Your task to perform on an android device: check data usage Image 0: 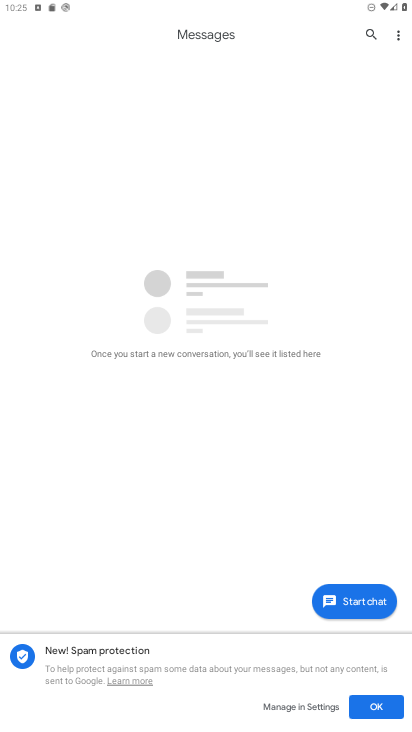
Step 0: press home button
Your task to perform on an android device: check data usage Image 1: 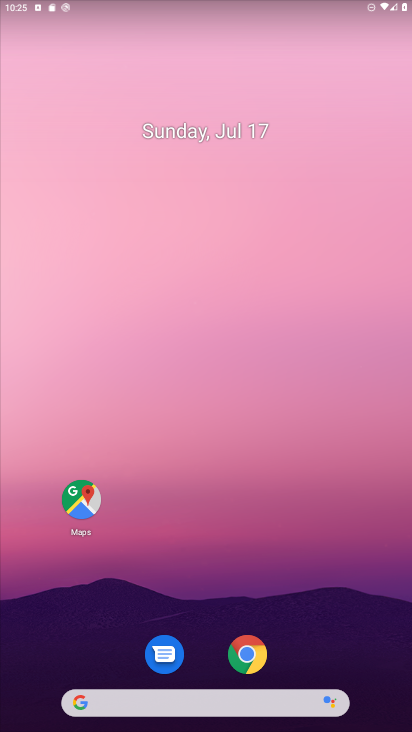
Step 1: drag from (200, 596) to (188, 113)
Your task to perform on an android device: check data usage Image 2: 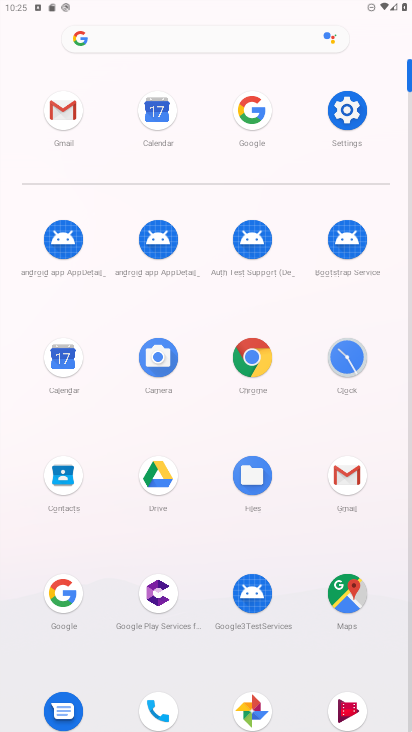
Step 2: click (339, 122)
Your task to perform on an android device: check data usage Image 3: 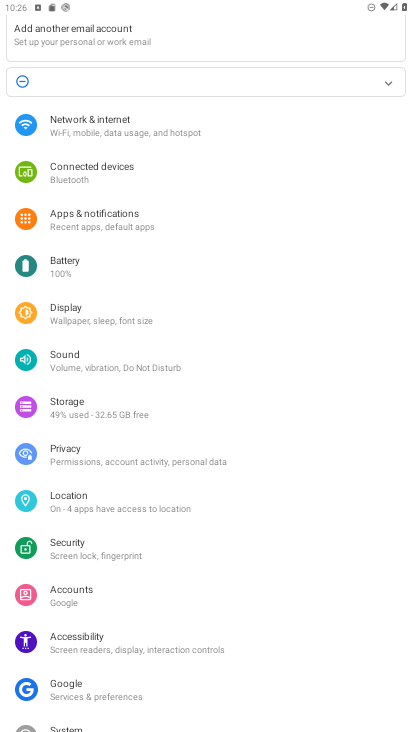
Step 3: click (119, 119)
Your task to perform on an android device: check data usage Image 4: 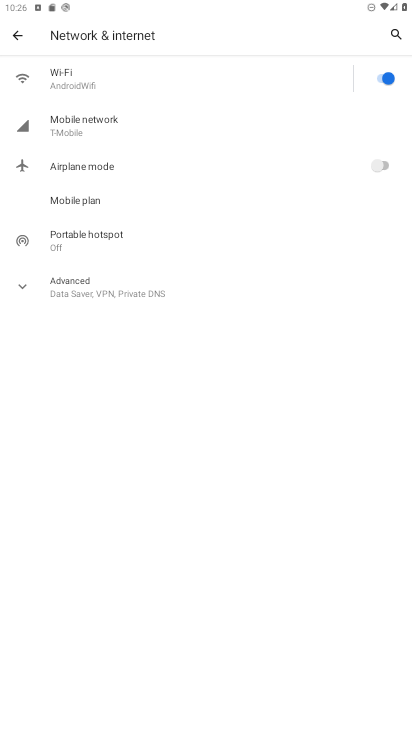
Step 4: click (133, 125)
Your task to perform on an android device: check data usage Image 5: 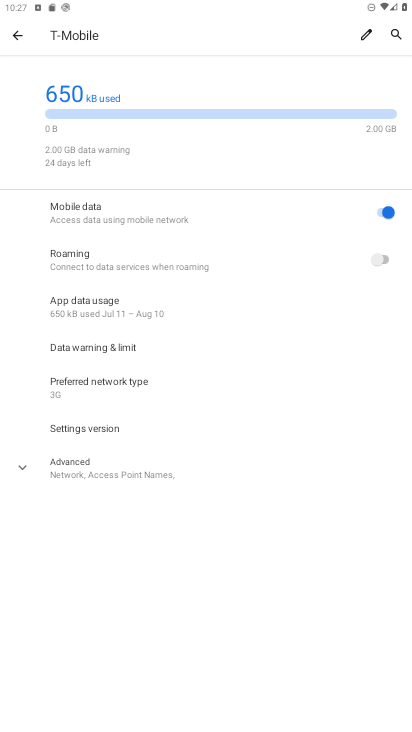
Step 5: click (102, 291)
Your task to perform on an android device: check data usage Image 6: 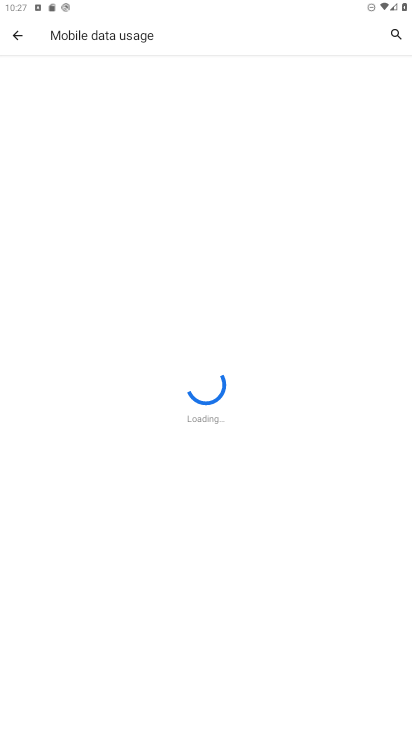
Step 6: task complete